Your task to perform on an android device: Open Chrome and go to the settings page Image 0: 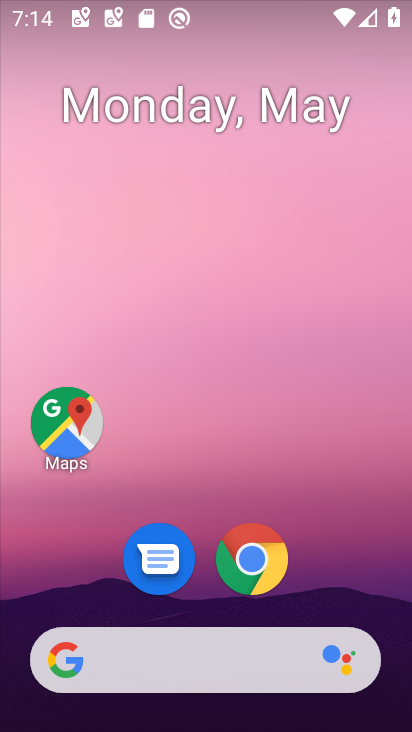
Step 0: drag from (380, 652) to (333, 393)
Your task to perform on an android device: Open Chrome and go to the settings page Image 1: 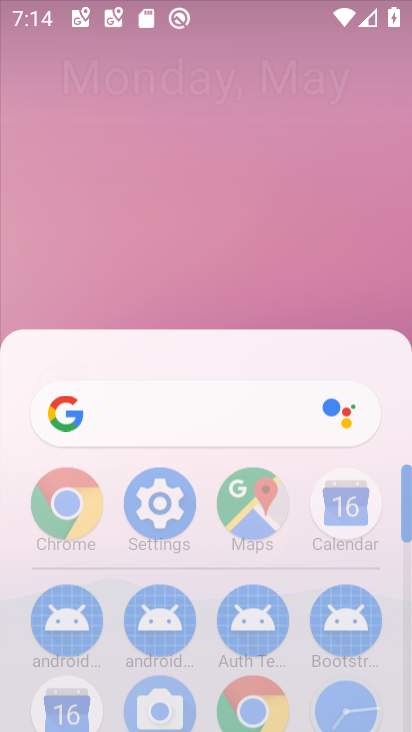
Step 1: drag from (238, 39) to (220, 3)
Your task to perform on an android device: Open Chrome and go to the settings page Image 2: 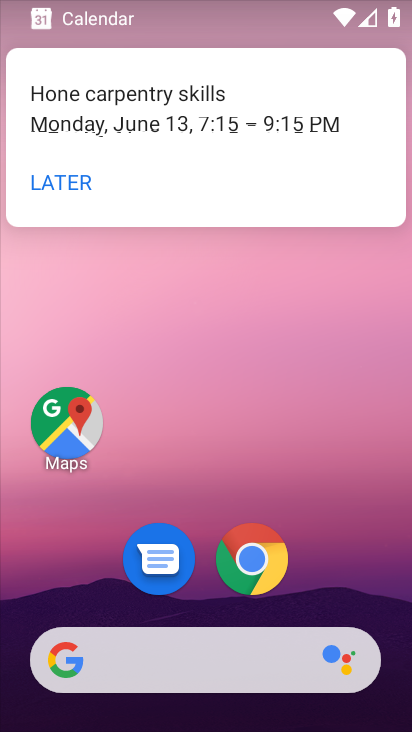
Step 2: drag from (407, 629) to (255, 37)
Your task to perform on an android device: Open Chrome and go to the settings page Image 3: 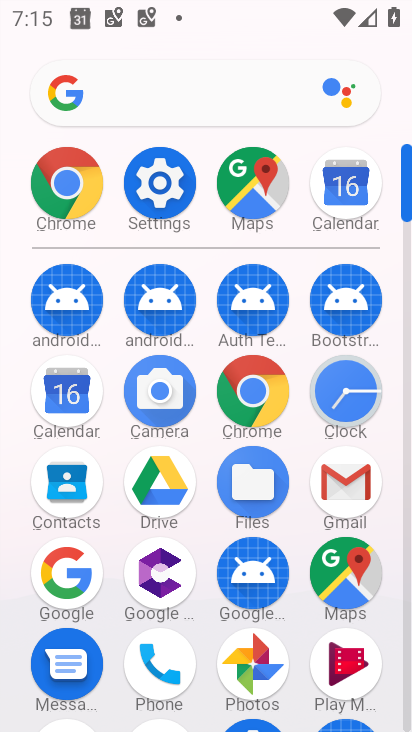
Step 3: click (80, 214)
Your task to perform on an android device: Open Chrome and go to the settings page Image 4: 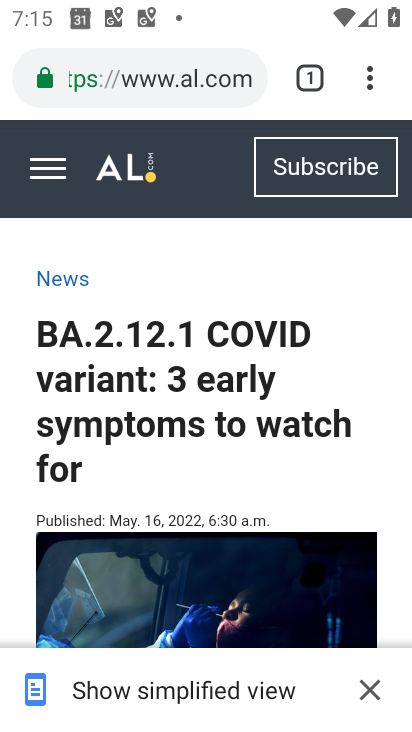
Step 4: press back button
Your task to perform on an android device: Open Chrome and go to the settings page Image 5: 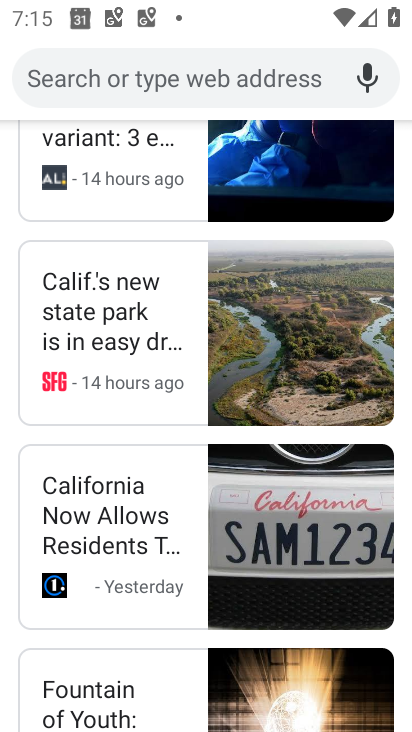
Step 5: drag from (365, 118) to (277, 724)
Your task to perform on an android device: Open Chrome and go to the settings page Image 6: 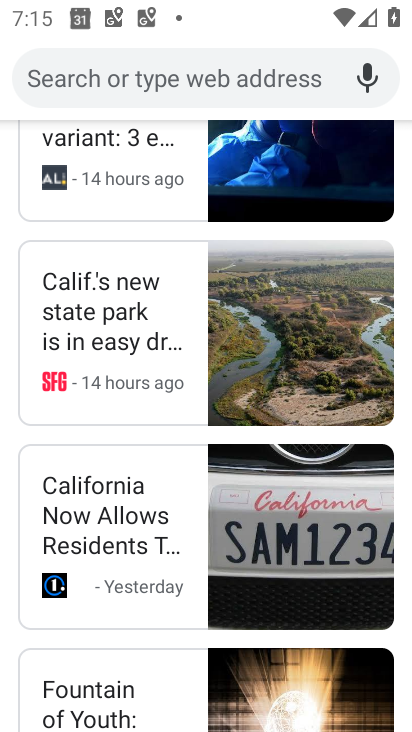
Step 6: drag from (284, 134) to (188, 654)
Your task to perform on an android device: Open Chrome and go to the settings page Image 7: 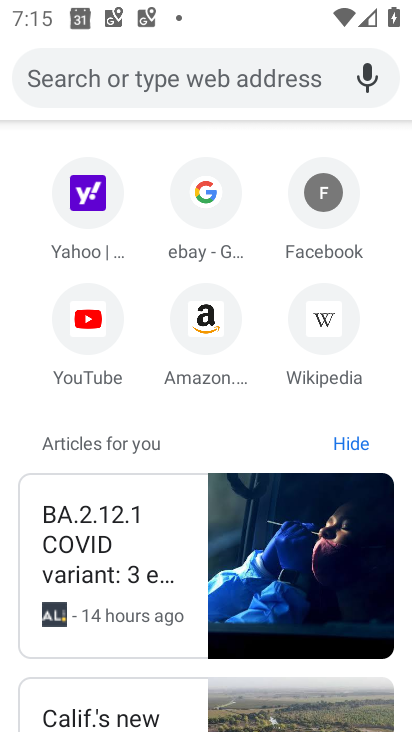
Step 7: drag from (209, 198) to (125, 659)
Your task to perform on an android device: Open Chrome and go to the settings page Image 8: 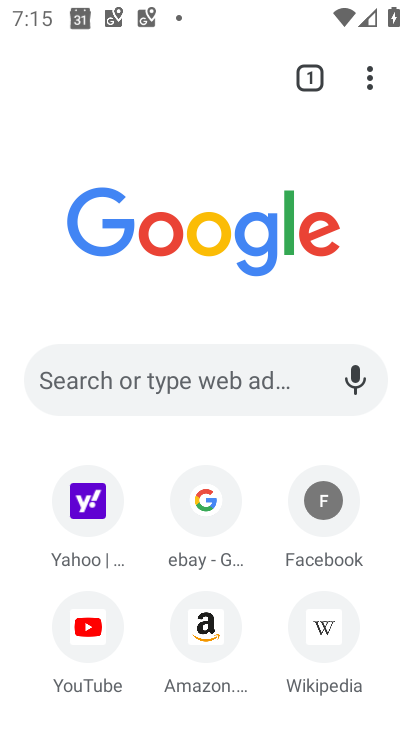
Step 8: click (364, 70)
Your task to perform on an android device: Open Chrome and go to the settings page Image 9: 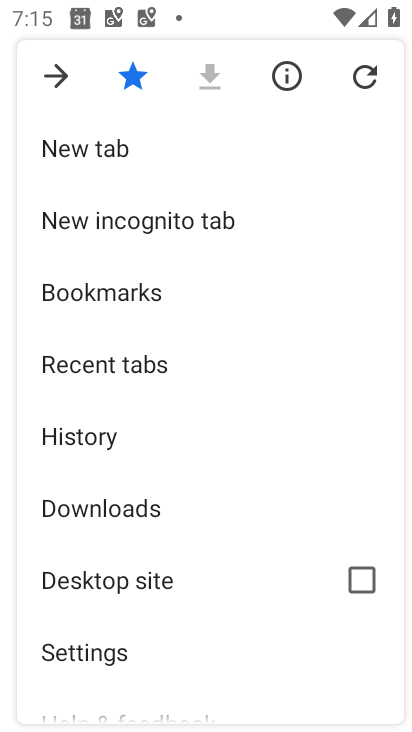
Step 9: click (112, 655)
Your task to perform on an android device: Open Chrome and go to the settings page Image 10: 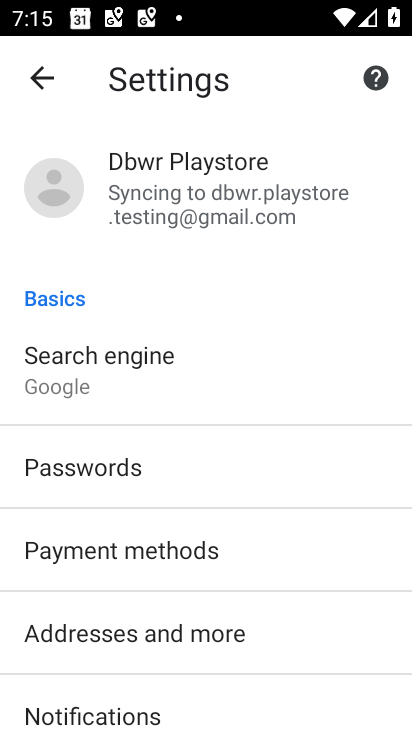
Step 10: task complete